Your task to perform on an android device: Go to Android settings Image 0: 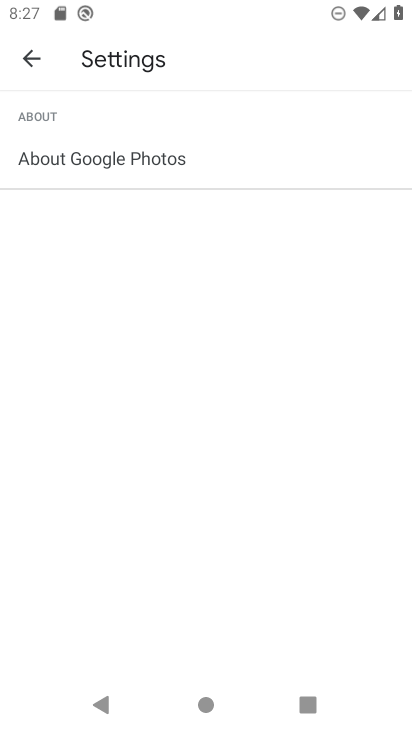
Step 0: press home button
Your task to perform on an android device: Go to Android settings Image 1: 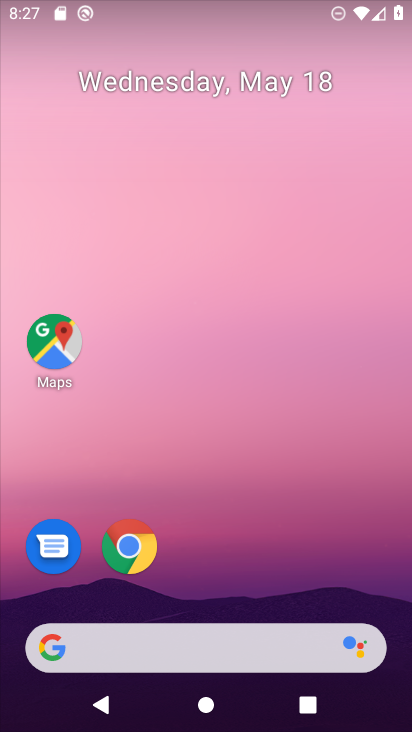
Step 1: drag from (205, 673) to (365, 212)
Your task to perform on an android device: Go to Android settings Image 2: 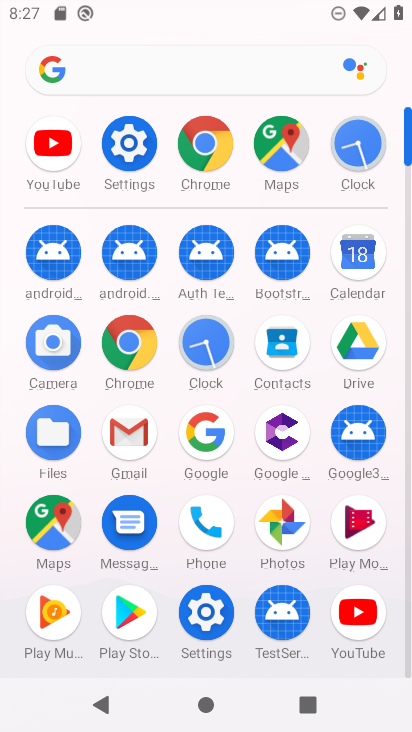
Step 2: click (134, 153)
Your task to perform on an android device: Go to Android settings Image 3: 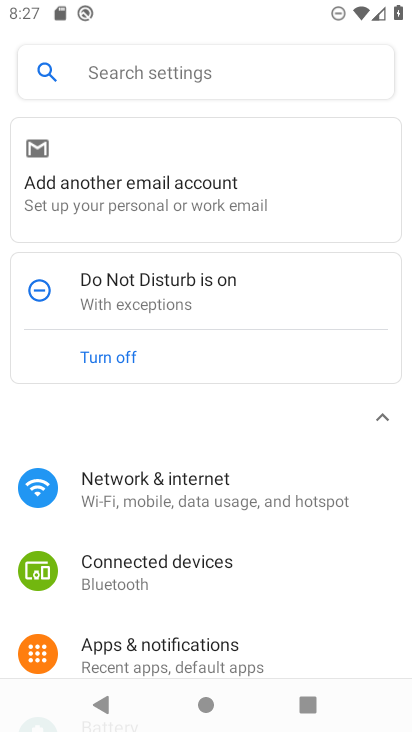
Step 3: click (143, 75)
Your task to perform on an android device: Go to Android settings Image 4: 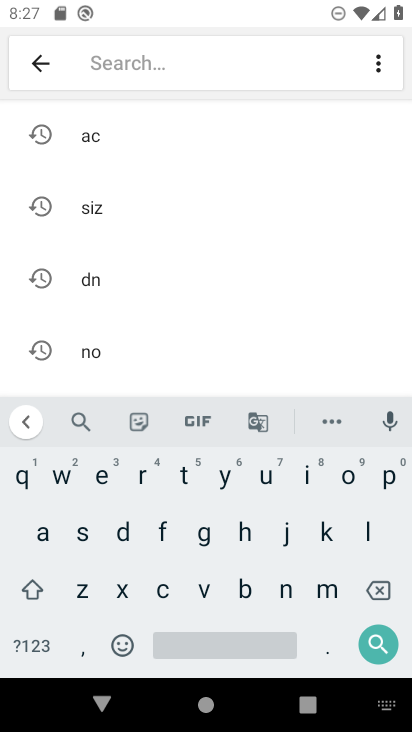
Step 4: click (40, 530)
Your task to perform on an android device: Go to Android settings Image 5: 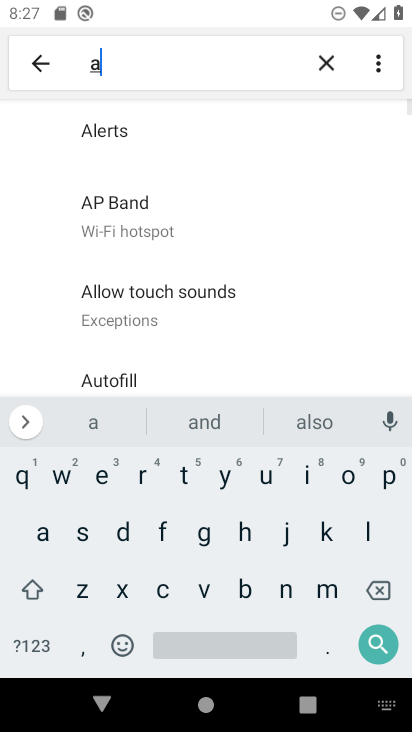
Step 5: click (283, 586)
Your task to perform on an android device: Go to Android settings Image 6: 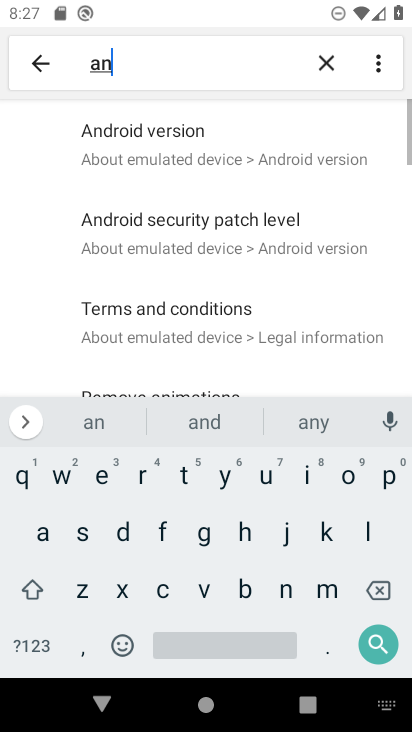
Step 6: click (196, 170)
Your task to perform on an android device: Go to Android settings Image 7: 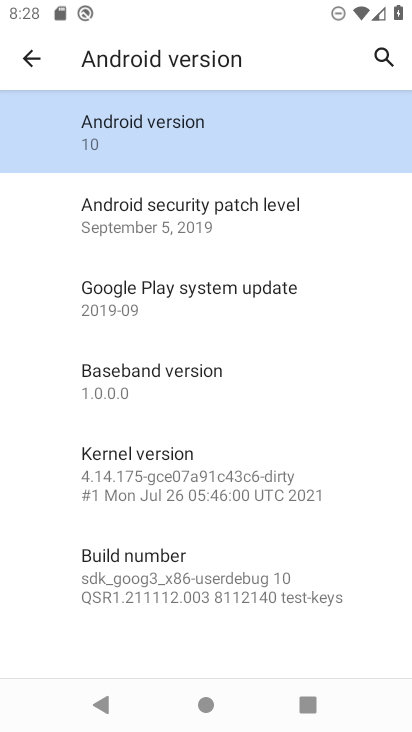
Step 7: click (195, 164)
Your task to perform on an android device: Go to Android settings Image 8: 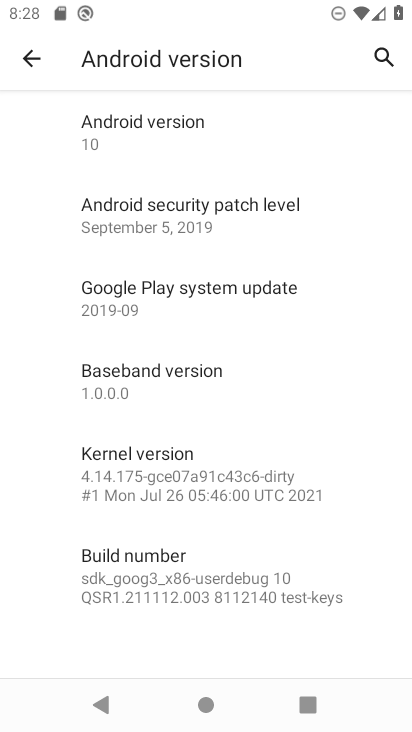
Step 8: task complete